Your task to perform on an android device: turn off sleep mode Image 0: 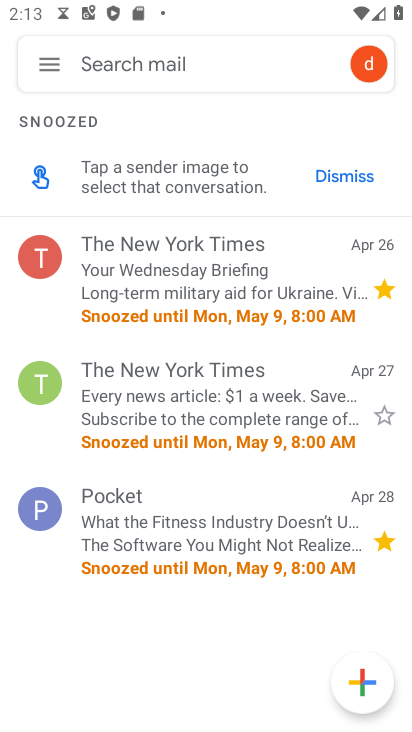
Step 0: press back button
Your task to perform on an android device: turn off sleep mode Image 1: 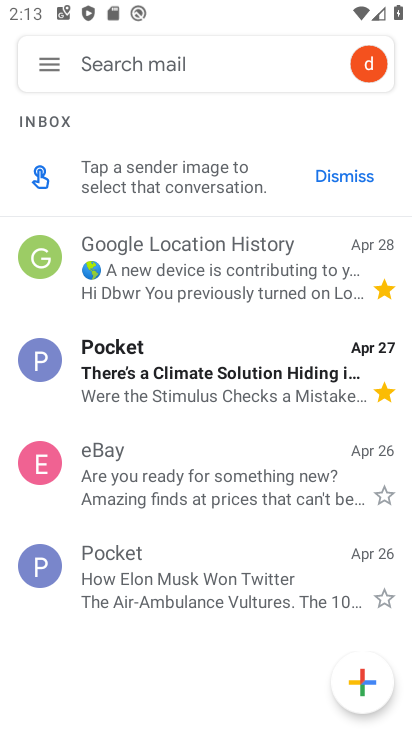
Step 1: press home button
Your task to perform on an android device: turn off sleep mode Image 2: 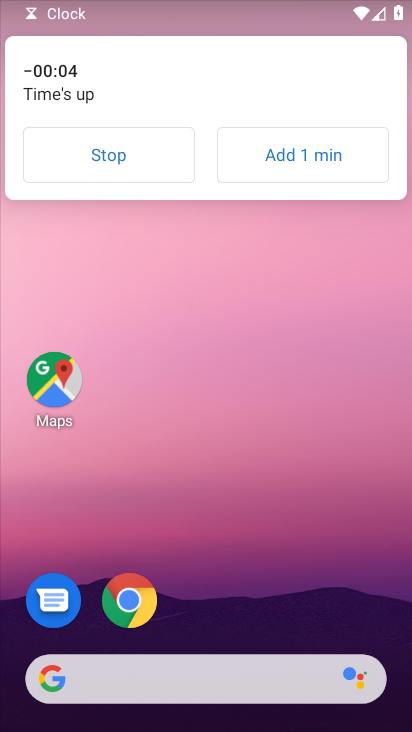
Step 2: click (128, 179)
Your task to perform on an android device: turn off sleep mode Image 3: 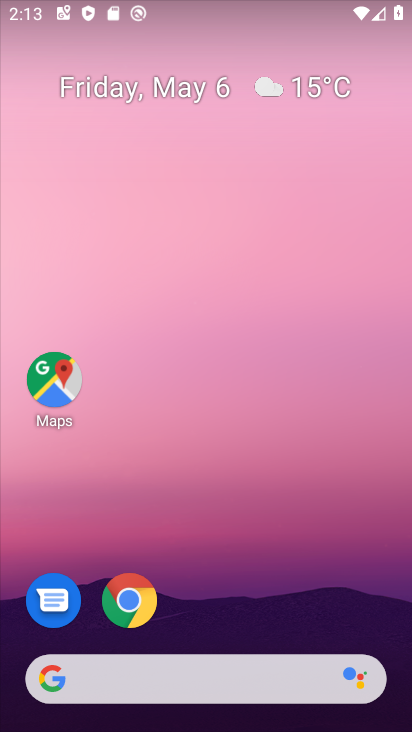
Step 3: drag from (294, 621) to (269, 48)
Your task to perform on an android device: turn off sleep mode Image 4: 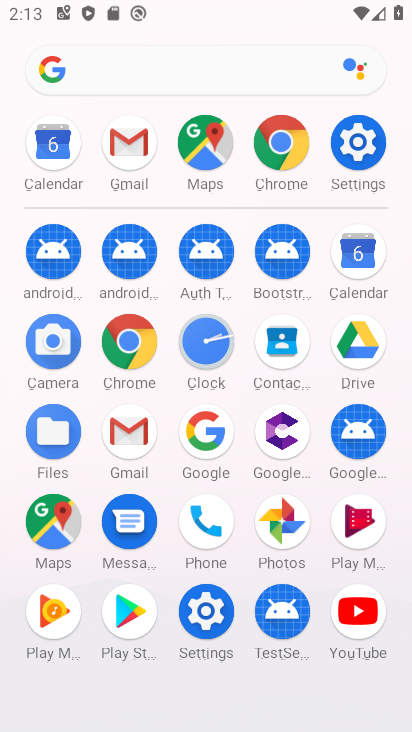
Step 4: drag from (16, 564) to (1, 253)
Your task to perform on an android device: turn off sleep mode Image 5: 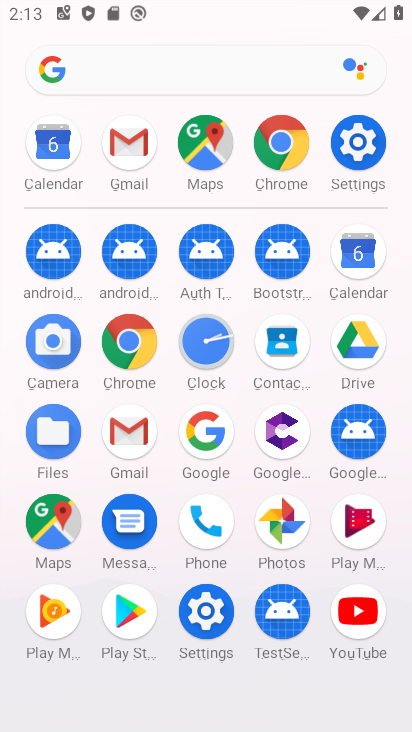
Step 5: click (211, 607)
Your task to perform on an android device: turn off sleep mode Image 6: 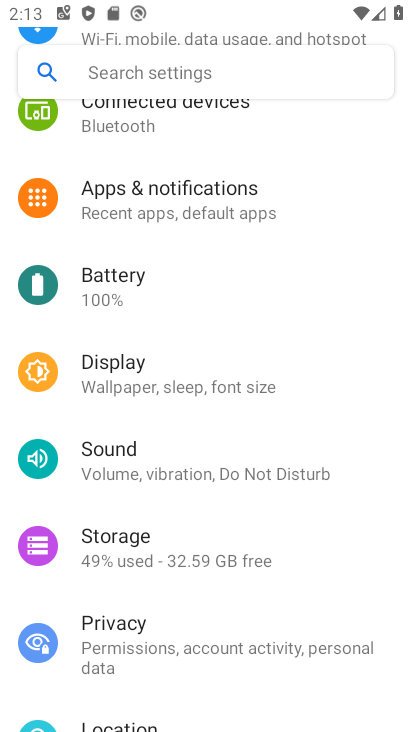
Step 6: drag from (288, 210) to (273, 618)
Your task to perform on an android device: turn off sleep mode Image 7: 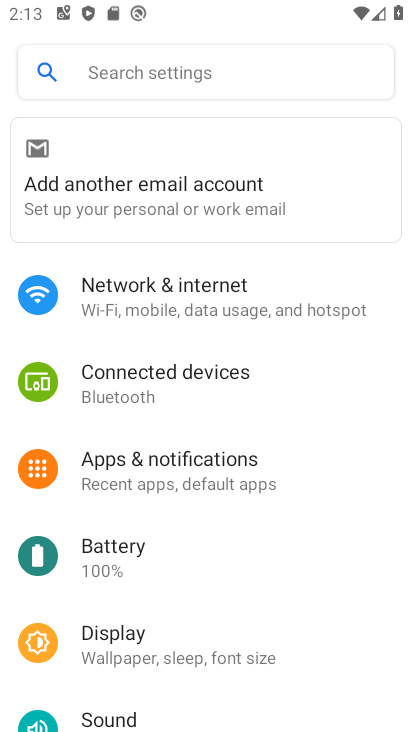
Step 7: drag from (234, 597) to (252, 181)
Your task to perform on an android device: turn off sleep mode Image 8: 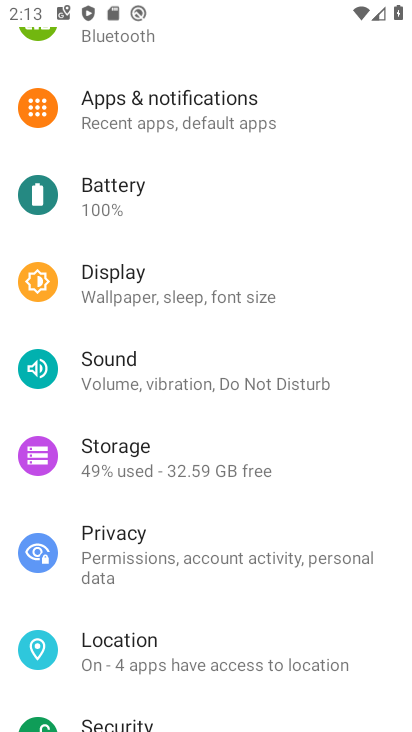
Step 8: click (168, 276)
Your task to perform on an android device: turn off sleep mode Image 9: 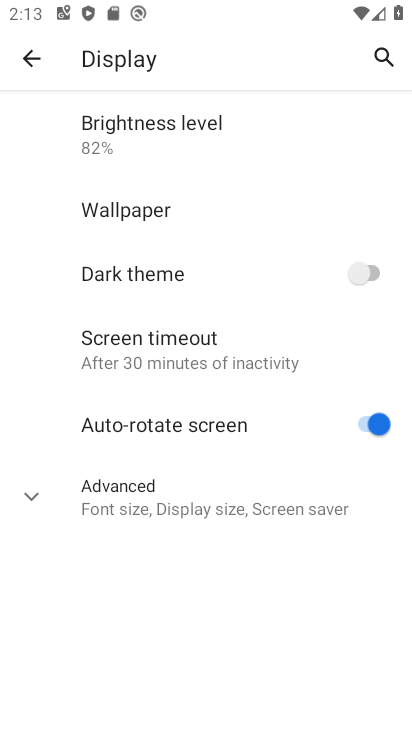
Step 9: click (44, 491)
Your task to perform on an android device: turn off sleep mode Image 10: 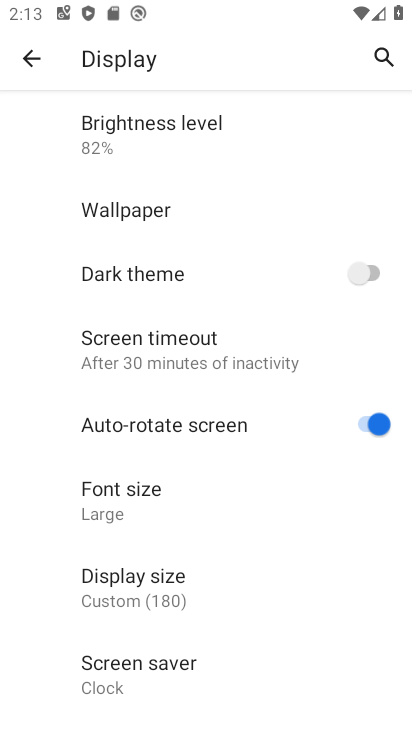
Step 10: task complete